Your task to perform on an android device: Search for "macbook pro 13 inch" on amazon.com, select the first entry, and add it to the cart. Image 0: 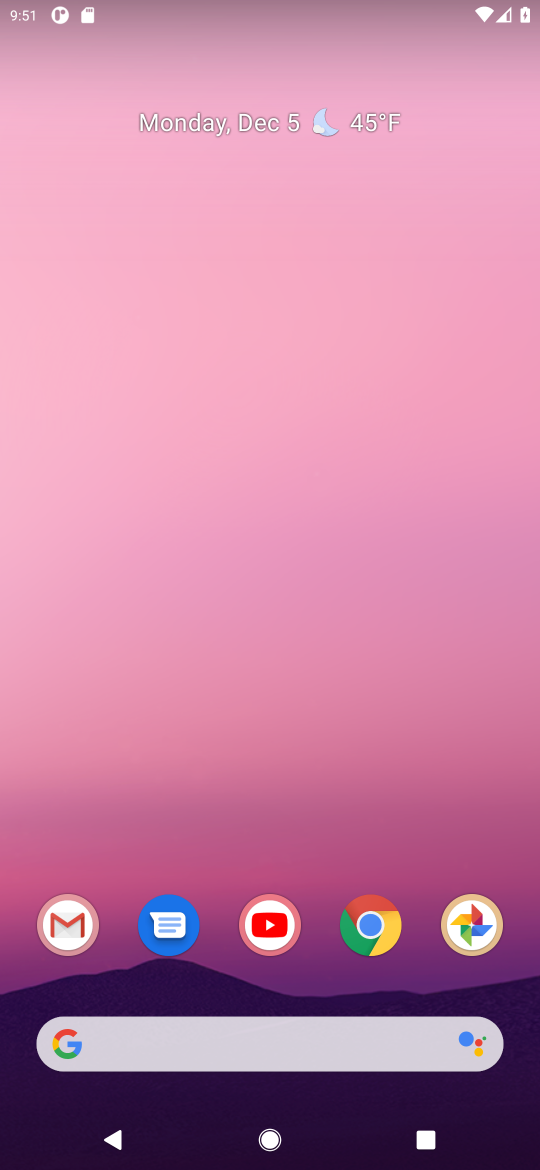
Step 0: click (371, 929)
Your task to perform on an android device: Search for "macbook pro 13 inch" on amazon.com, select the first entry, and add it to the cart. Image 1: 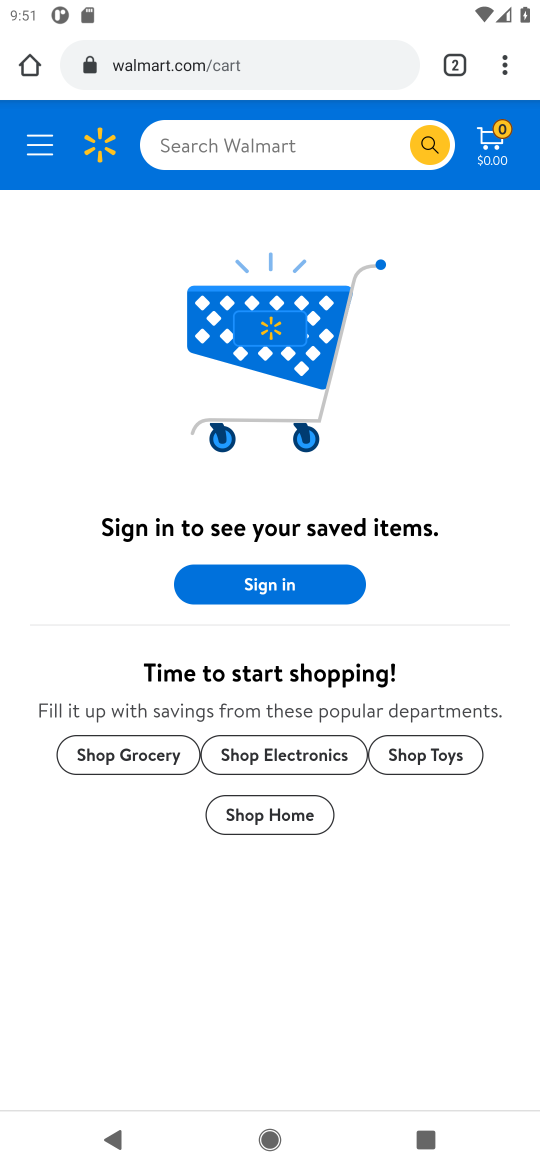
Step 1: click (140, 66)
Your task to perform on an android device: Search for "macbook pro 13 inch" on amazon.com, select the first entry, and add it to the cart. Image 2: 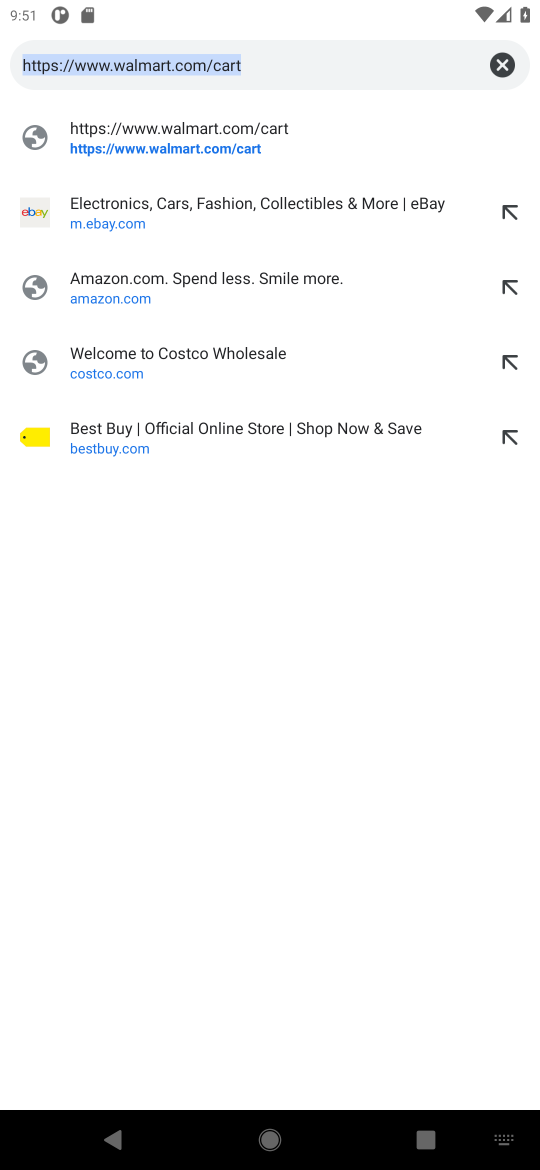
Step 2: click (90, 285)
Your task to perform on an android device: Search for "macbook pro 13 inch" on amazon.com, select the first entry, and add it to the cart. Image 3: 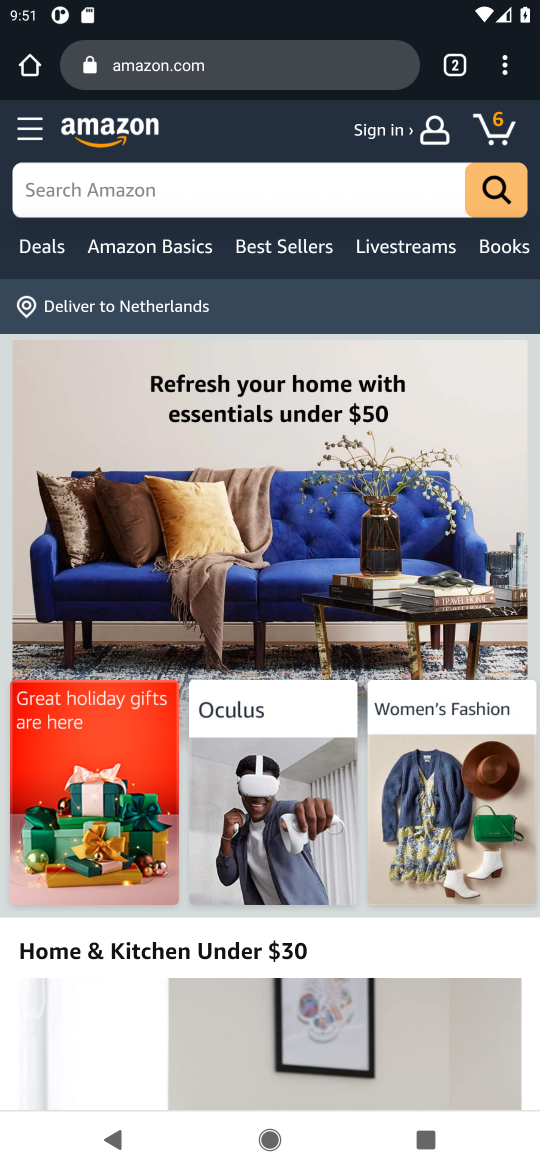
Step 3: click (154, 200)
Your task to perform on an android device: Search for "macbook pro 13 inch" on amazon.com, select the first entry, and add it to the cart. Image 4: 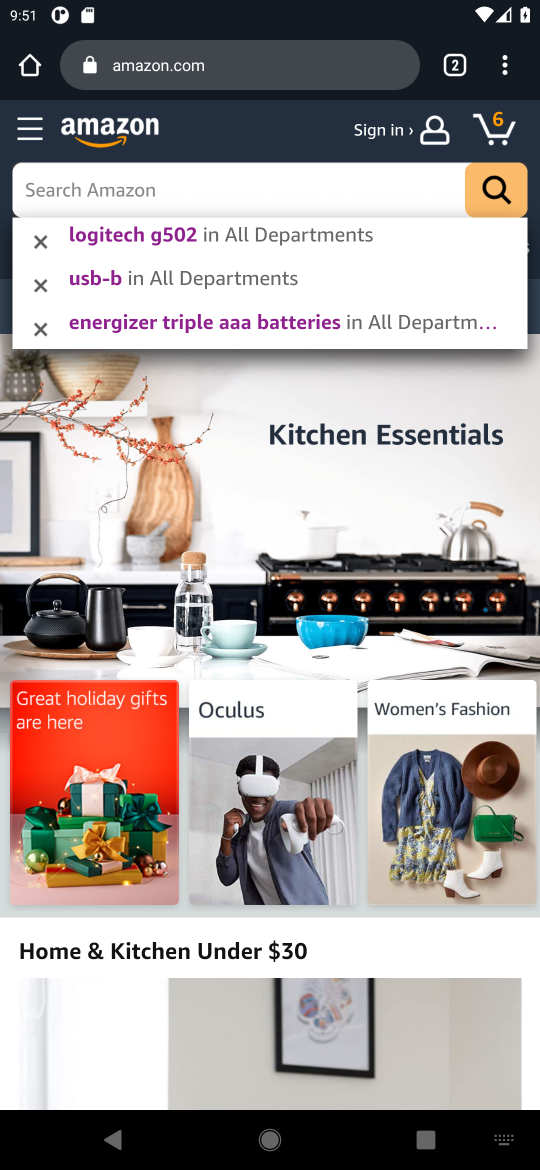
Step 4: type "macbook pro 13 inch"
Your task to perform on an android device: Search for "macbook pro 13 inch" on amazon.com, select the first entry, and add it to the cart. Image 5: 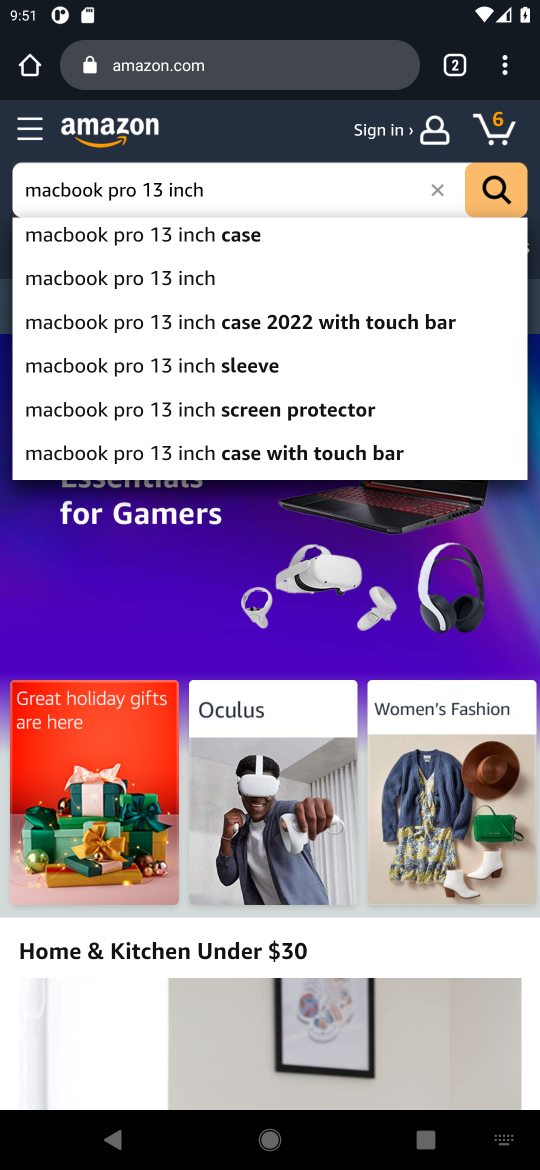
Step 5: click (157, 287)
Your task to perform on an android device: Search for "macbook pro 13 inch" on amazon.com, select the first entry, and add it to the cart. Image 6: 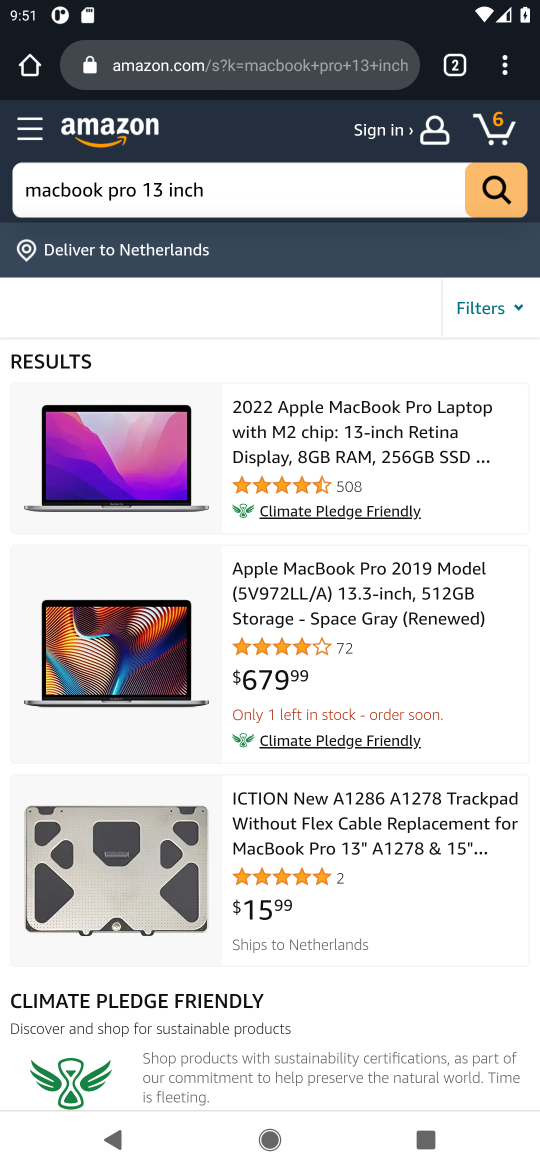
Step 6: click (324, 456)
Your task to perform on an android device: Search for "macbook pro 13 inch" on amazon.com, select the first entry, and add it to the cart. Image 7: 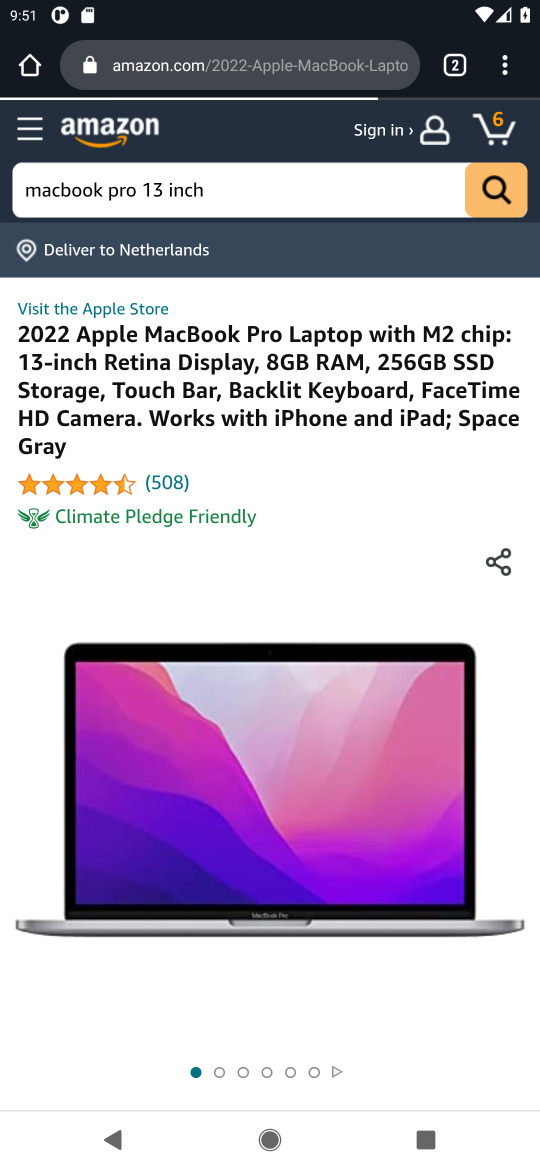
Step 7: task complete